Your task to perform on an android device: View the shopping cart on walmart. Search for dell alienware on walmart, select the first entry, add it to the cart, then select checkout. Image 0: 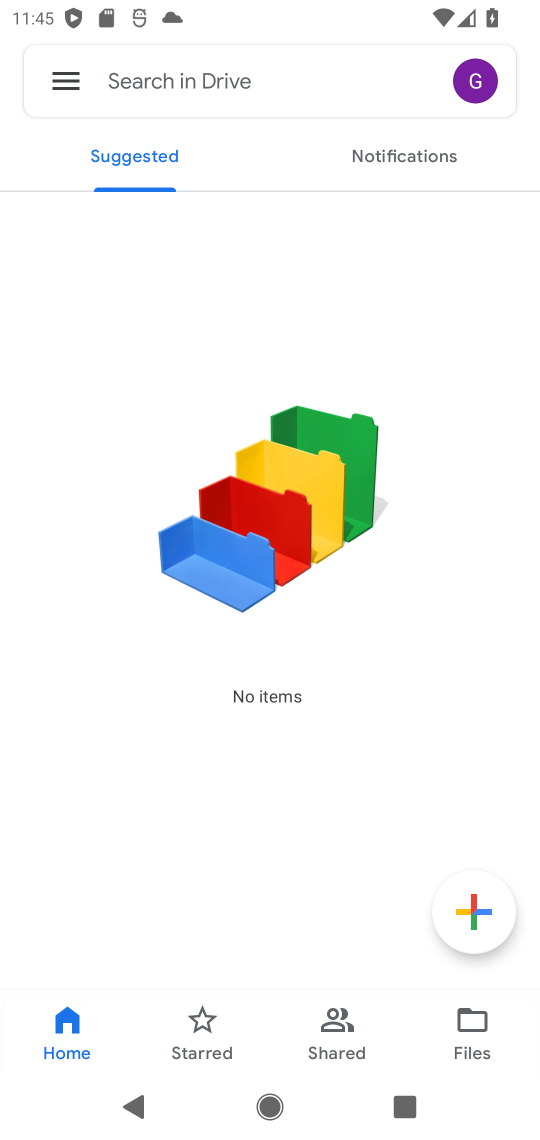
Step 0: press home button
Your task to perform on an android device: View the shopping cart on walmart. Search for dell alienware on walmart, select the first entry, add it to the cart, then select checkout. Image 1: 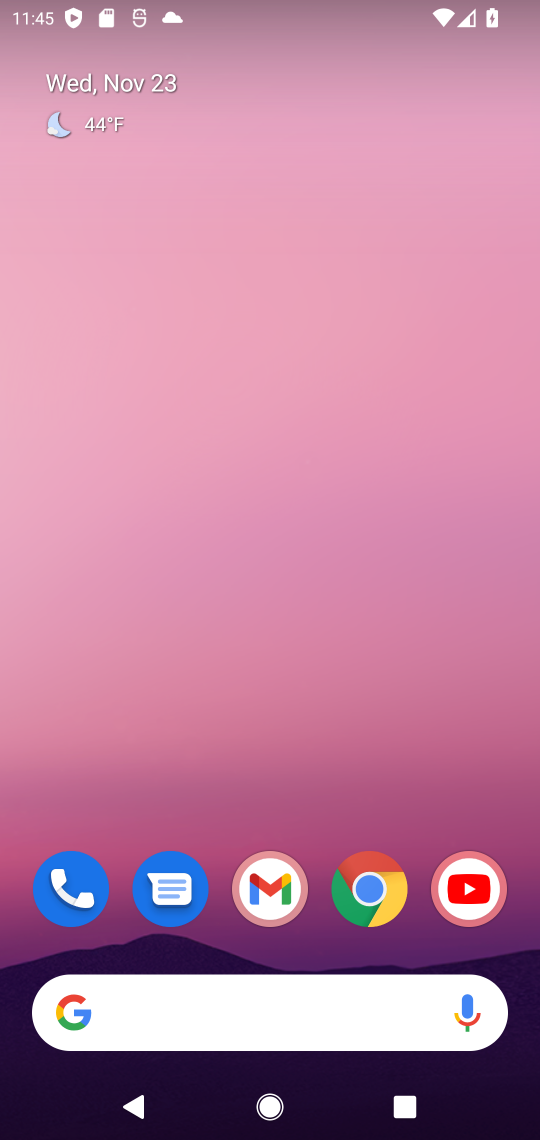
Step 1: click (361, 901)
Your task to perform on an android device: View the shopping cart on walmart. Search for dell alienware on walmart, select the first entry, add it to the cart, then select checkout. Image 2: 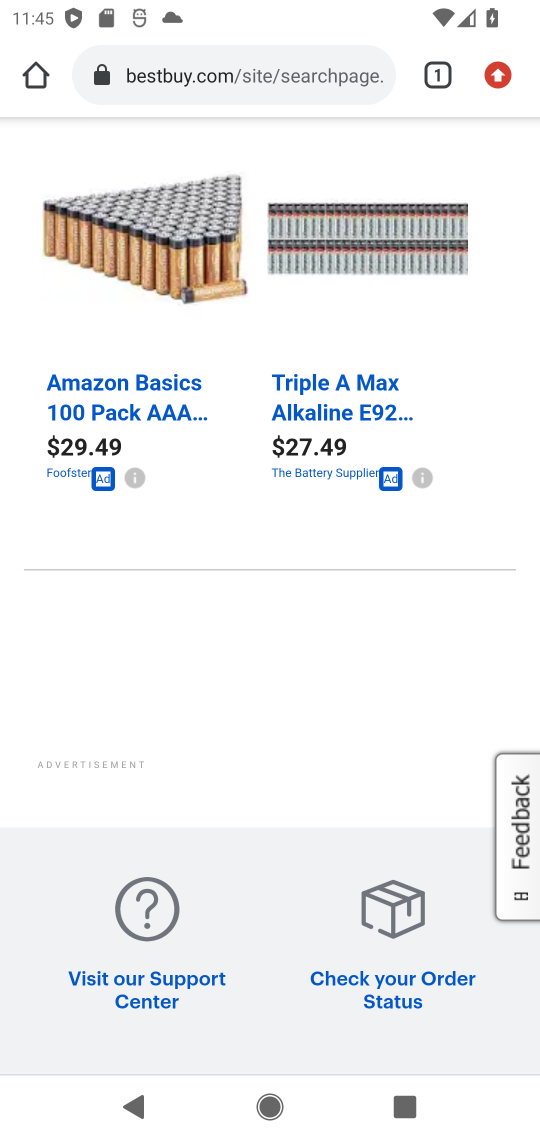
Step 2: click (234, 81)
Your task to perform on an android device: View the shopping cart on walmart. Search for dell alienware on walmart, select the first entry, add it to the cart, then select checkout. Image 3: 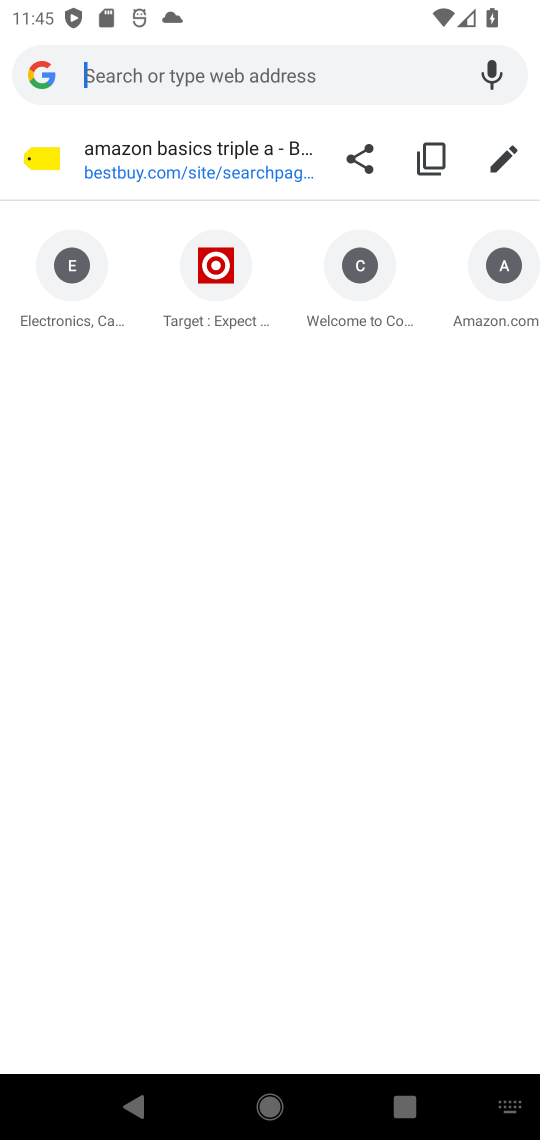
Step 3: type "walmart.com"
Your task to perform on an android device: View the shopping cart on walmart. Search for dell alienware on walmart, select the first entry, add it to the cart, then select checkout. Image 4: 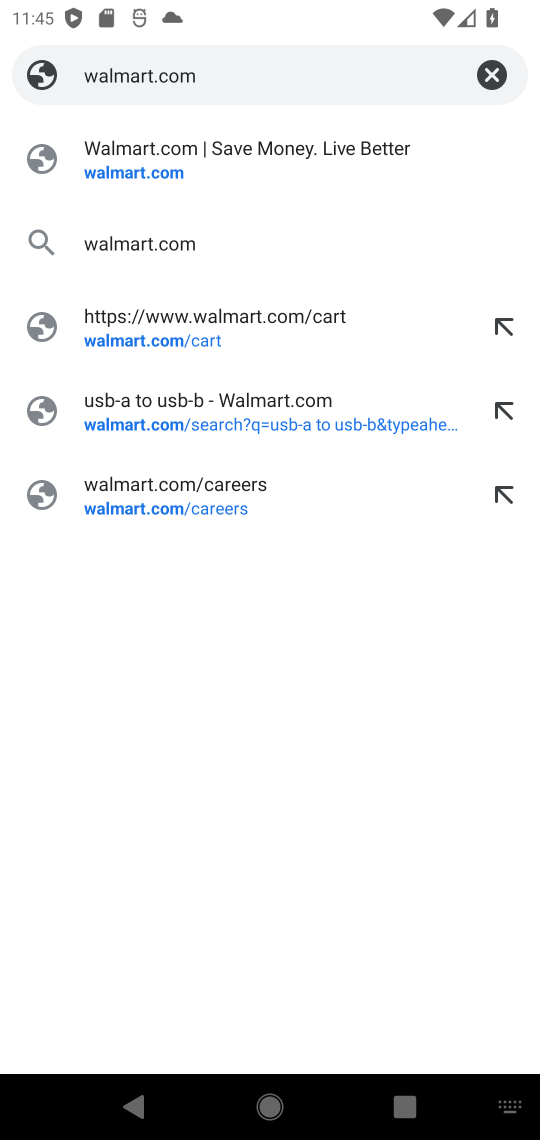
Step 4: click (134, 174)
Your task to perform on an android device: View the shopping cart on walmart. Search for dell alienware on walmart, select the first entry, add it to the cart, then select checkout. Image 5: 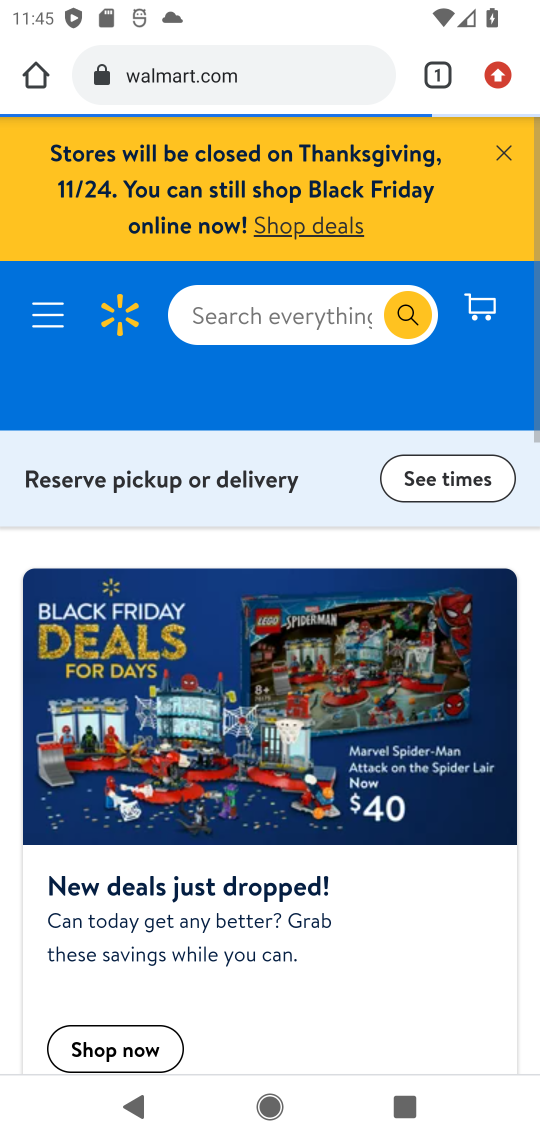
Step 5: click (483, 311)
Your task to perform on an android device: View the shopping cart on walmart. Search for dell alienware on walmart, select the first entry, add it to the cart, then select checkout. Image 6: 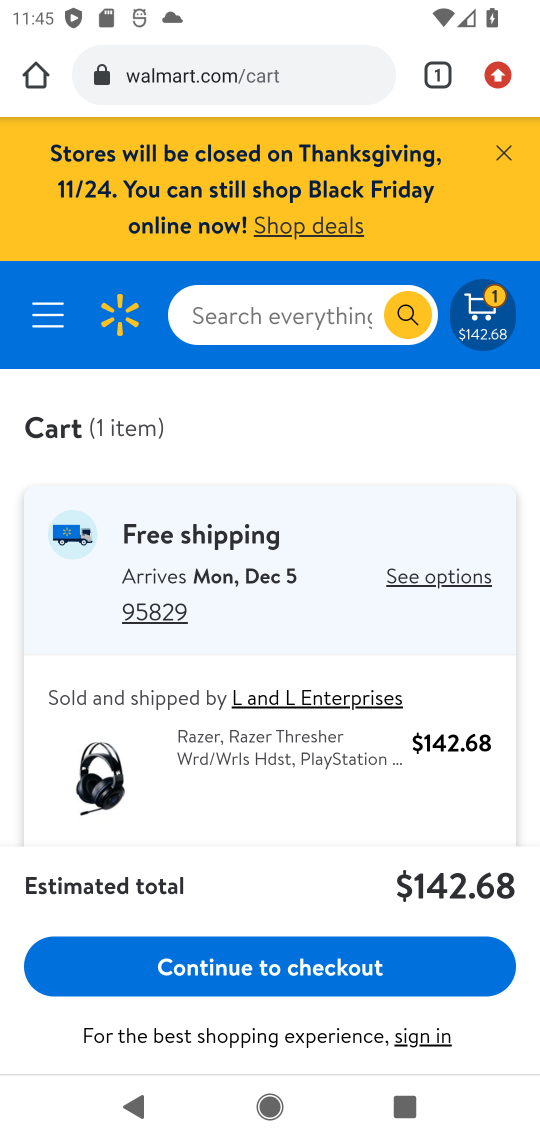
Step 6: drag from (231, 764) to (280, 469)
Your task to perform on an android device: View the shopping cart on walmart. Search for dell alienware on walmart, select the first entry, add it to the cart, then select checkout. Image 7: 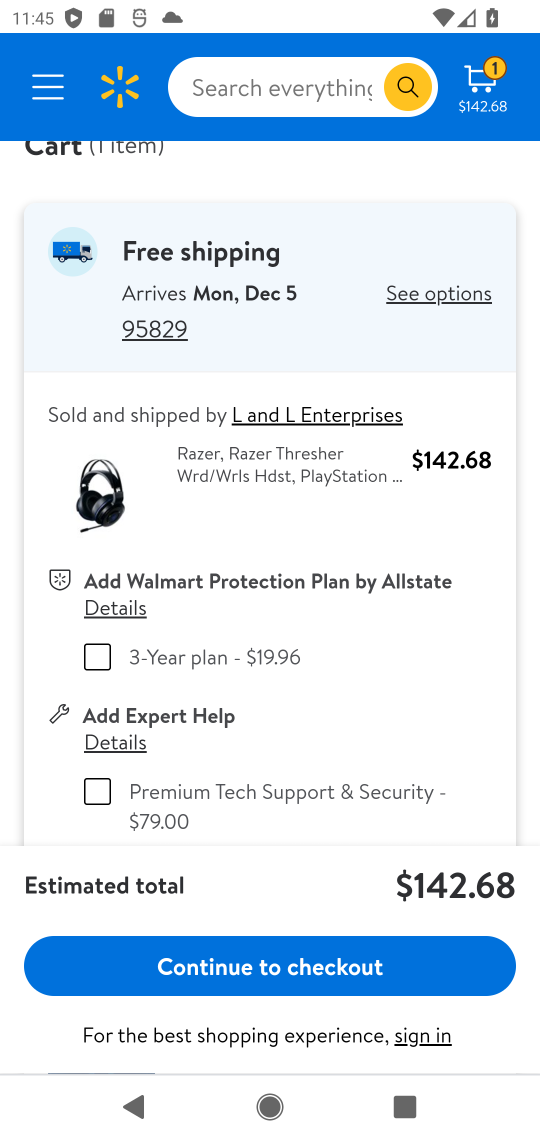
Step 7: click (300, 95)
Your task to perform on an android device: View the shopping cart on walmart. Search for dell alienware on walmart, select the first entry, add it to the cart, then select checkout. Image 8: 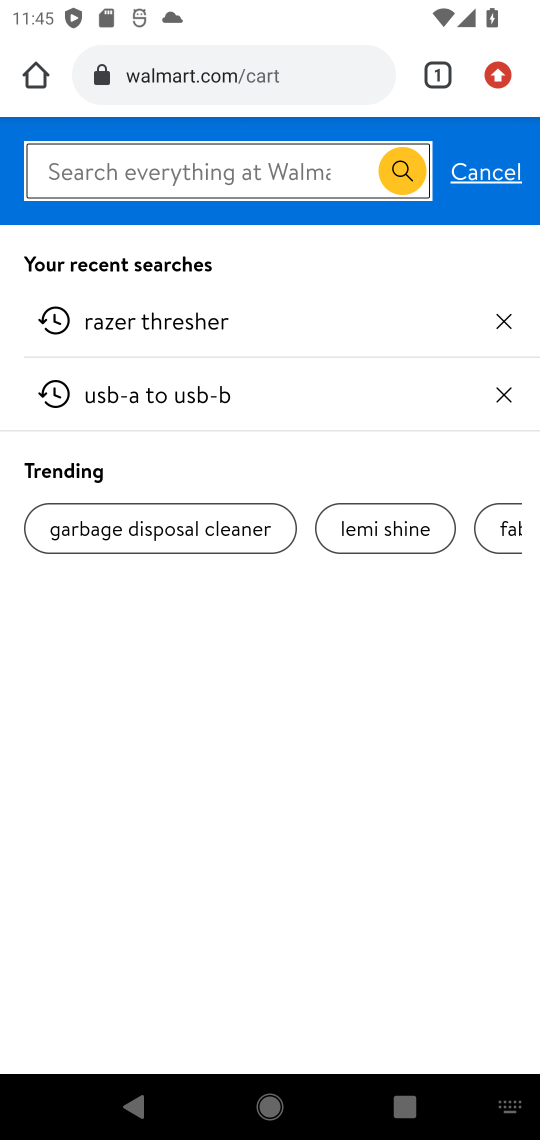
Step 8: type "dell alienware"
Your task to perform on an android device: View the shopping cart on walmart. Search for dell alienware on walmart, select the first entry, add it to the cart, then select checkout. Image 9: 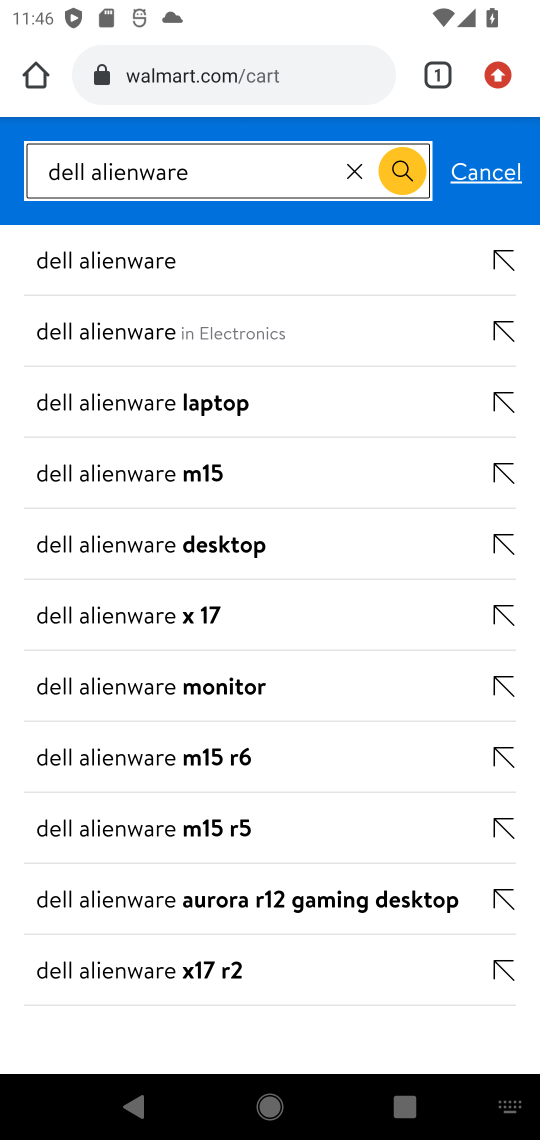
Step 9: click (140, 278)
Your task to perform on an android device: View the shopping cart on walmart. Search for dell alienware on walmart, select the first entry, add it to the cart, then select checkout. Image 10: 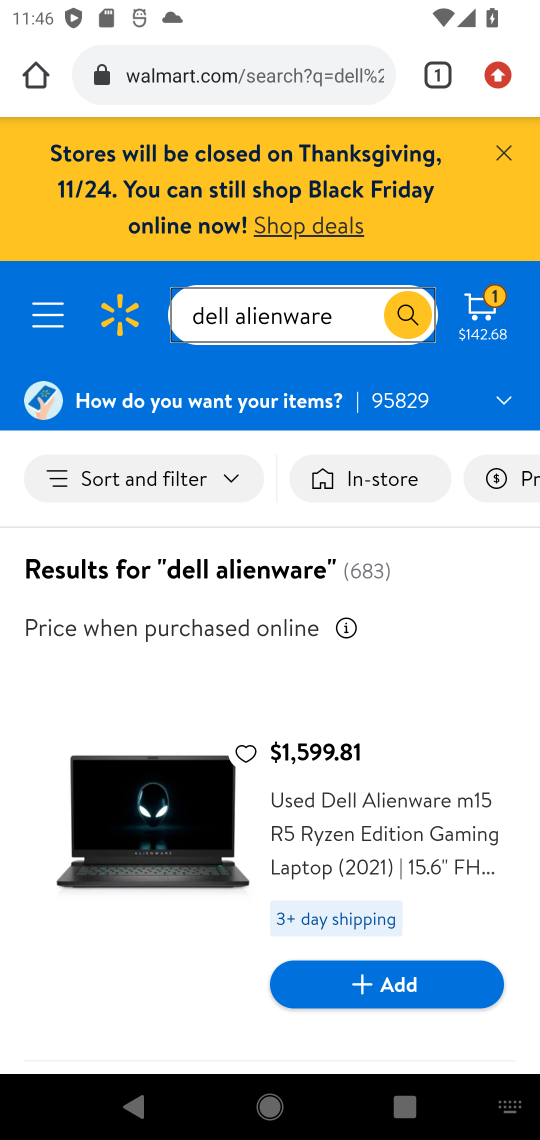
Step 10: drag from (257, 707) to (279, 470)
Your task to perform on an android device: View the shopping cart on walmart. Search for dell alienware on walmart, select the first entry, add it to the cart, then select checkout. Image 11: 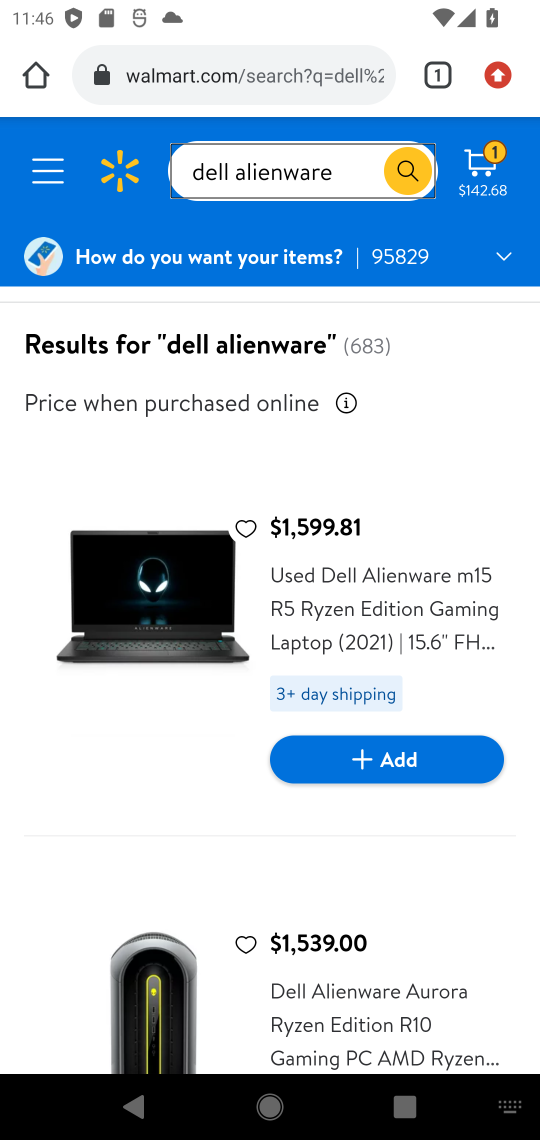
Step 11: click (375, 770)
Your task to perform on an android device: View the shopping cart on walmart. Search for dell alienware on walmart, select the first entry, add it to the cart, then select checkout. Image 12: 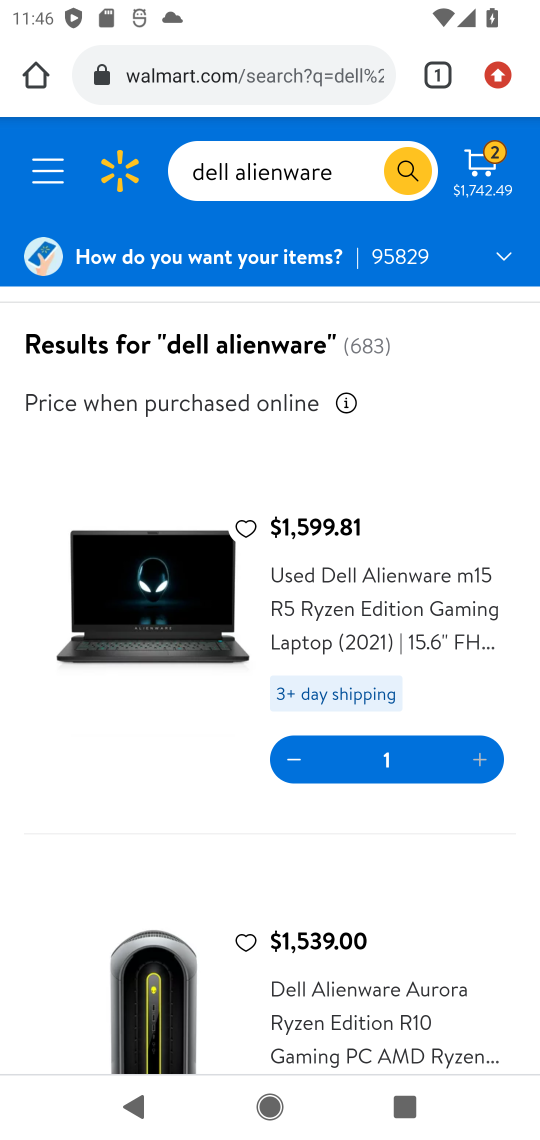
Step 12: click (481, 151)
Your task to perform on an android device: View the shopping cart on walmart. Search for dell alienware on walmart, select the first entry, add it to the cart, then select checkout. Image 13: 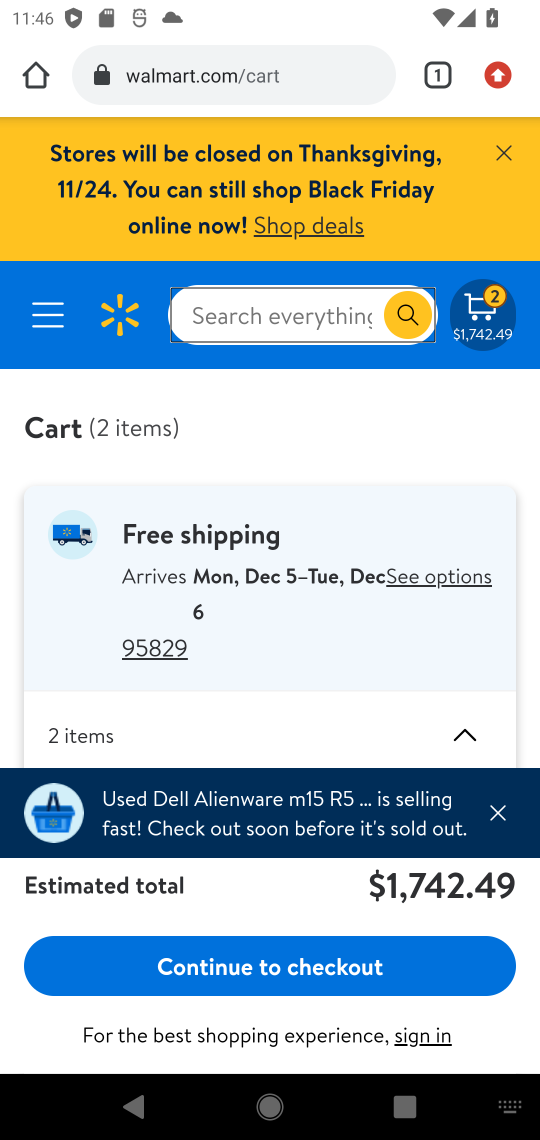
Step 13: click (223, 963)
Your task to perform on an android device: View the shopping cart on walmart. Search for dell alienware on walmart, select the first entry, add it to the cart, then select checkout. Image 14: 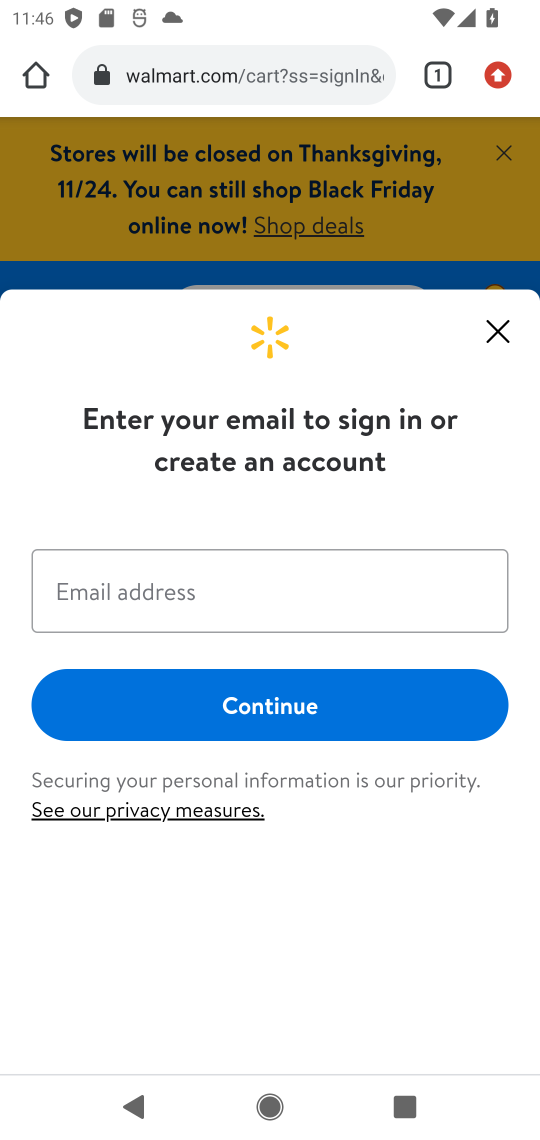
Step 14: task complete